Your task to perform on an android device: Is it going to rain this weekend? Image 0: 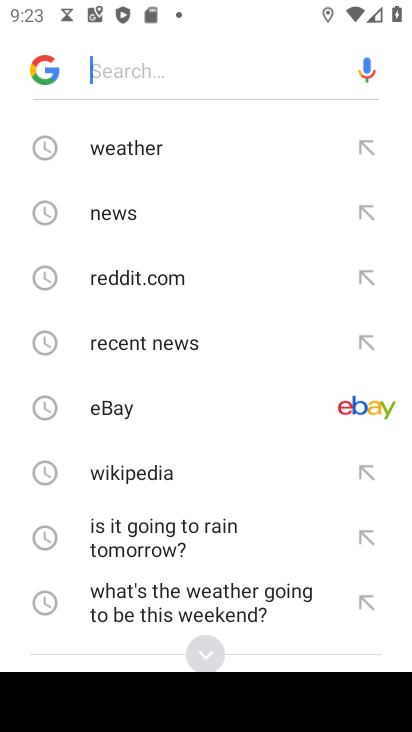
Step 0: press home button
Your task to perform on an android device: Is it going to rain this weekend? Image 1: 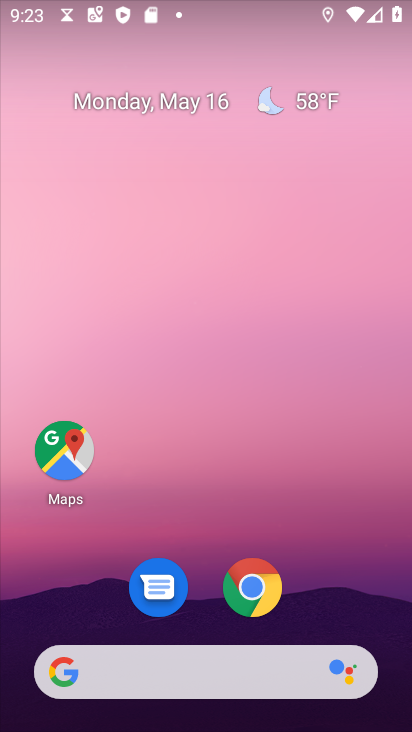
Step 1: drag from (348, 624) to (252, 167)
Your task to perform on an android device: Is it going to rain this weekend? Image 2: 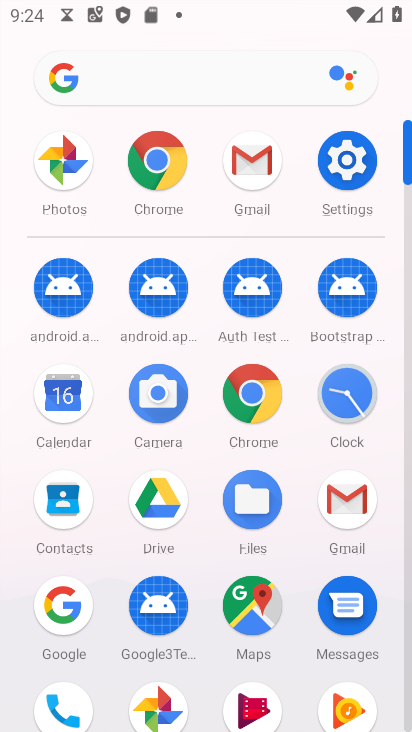
Step 2: click (171, 145)
Your task to perform on an android device: Is it going to rain this weekend? Image 3: 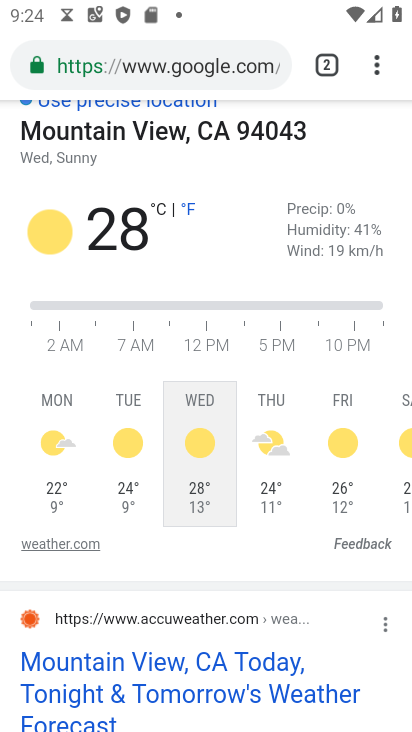
Step 3: click (407, 457)
Your task to perform on an android device: Is it going to rain this weekend? Image 4: 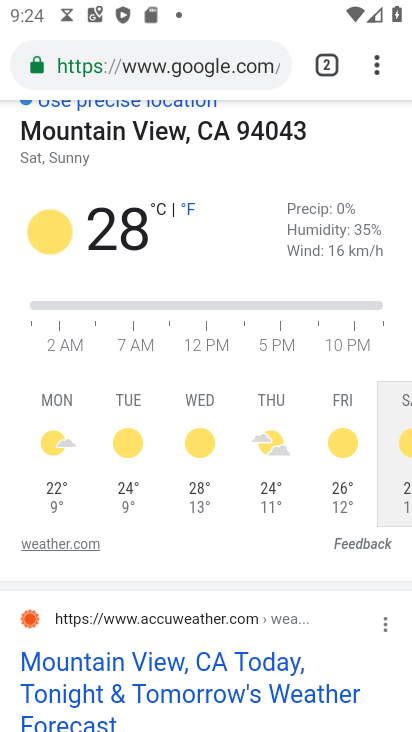
Step 4: task complete